Your task to perform on an android device: Search for the best rated headphones on Amazon Image 0: 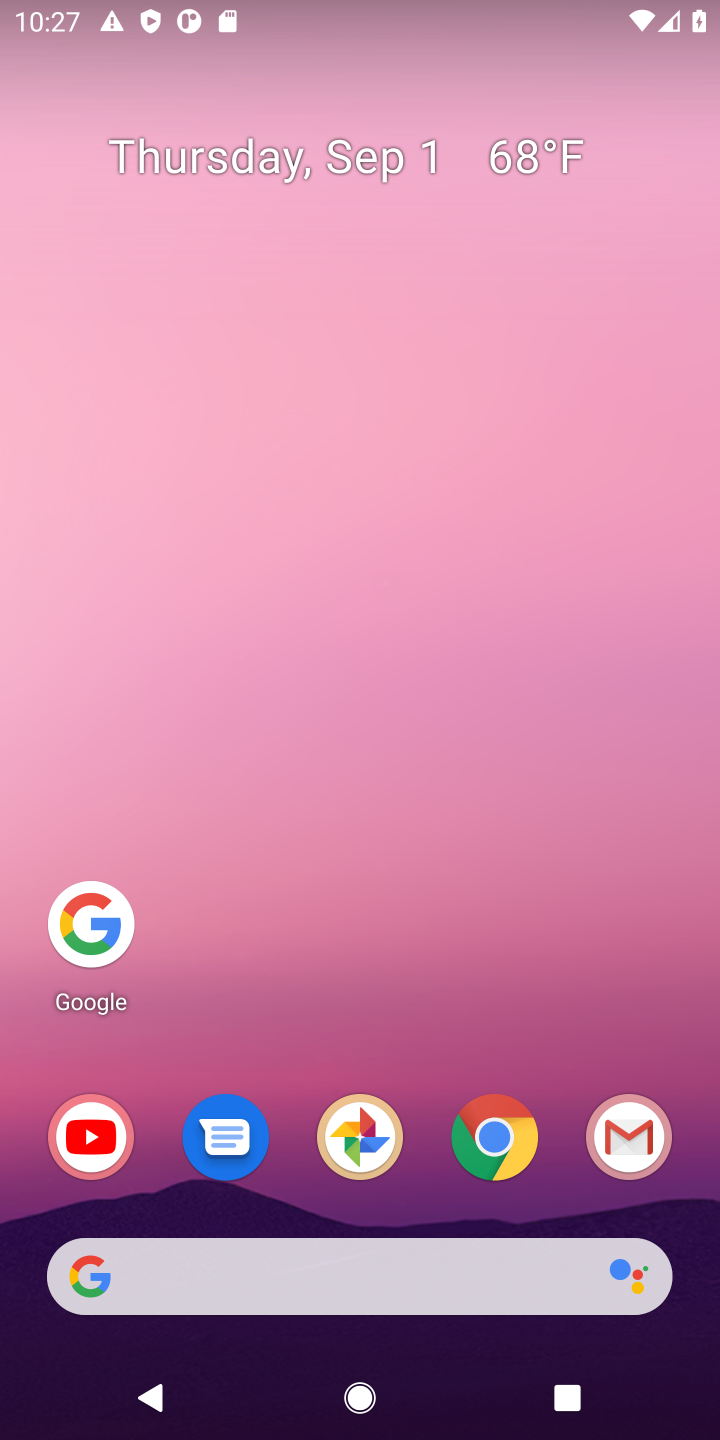
Step 0: click (502, 1136)
Your task to perform on an android device: Search for the best rated headphones on Amazon Image 1: 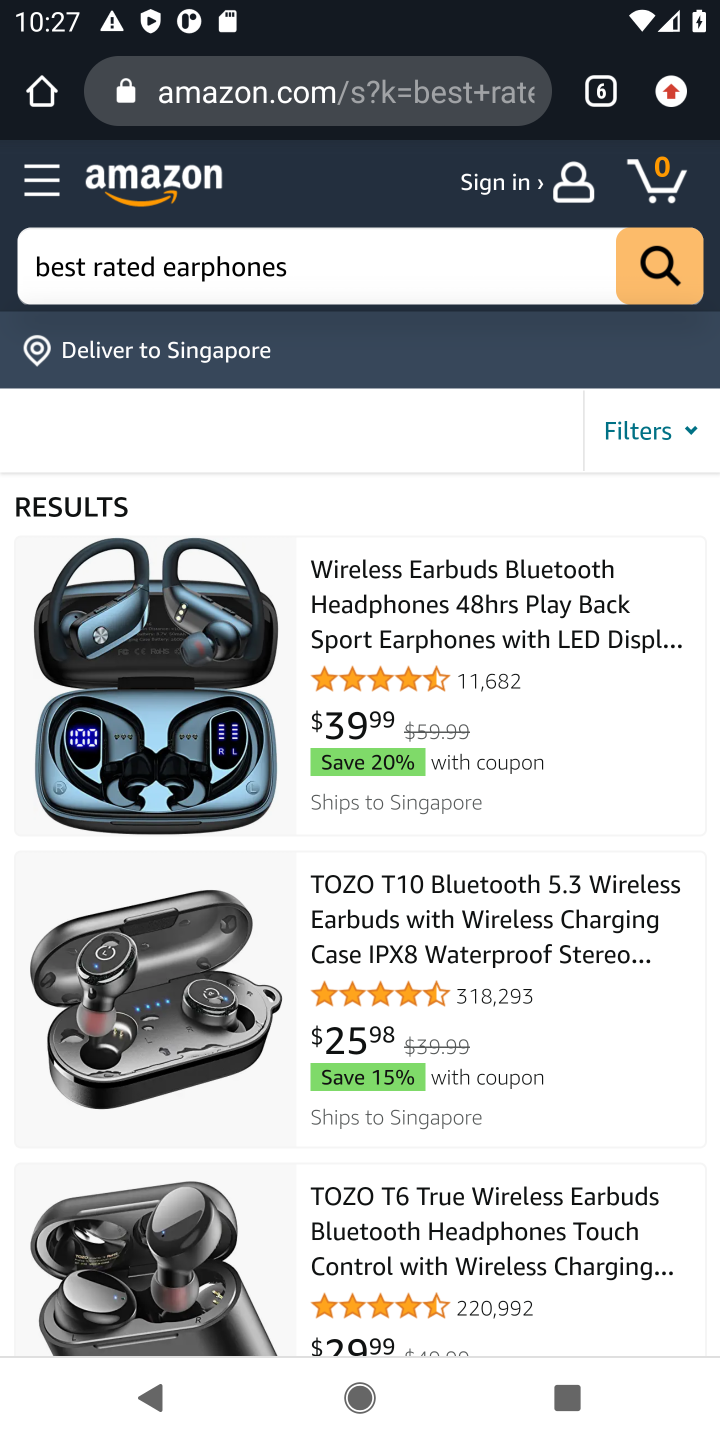
Step 1: click (336, 248)
Your task to perform on an android device: Search for the best rated headphones on Amazon Image 2: 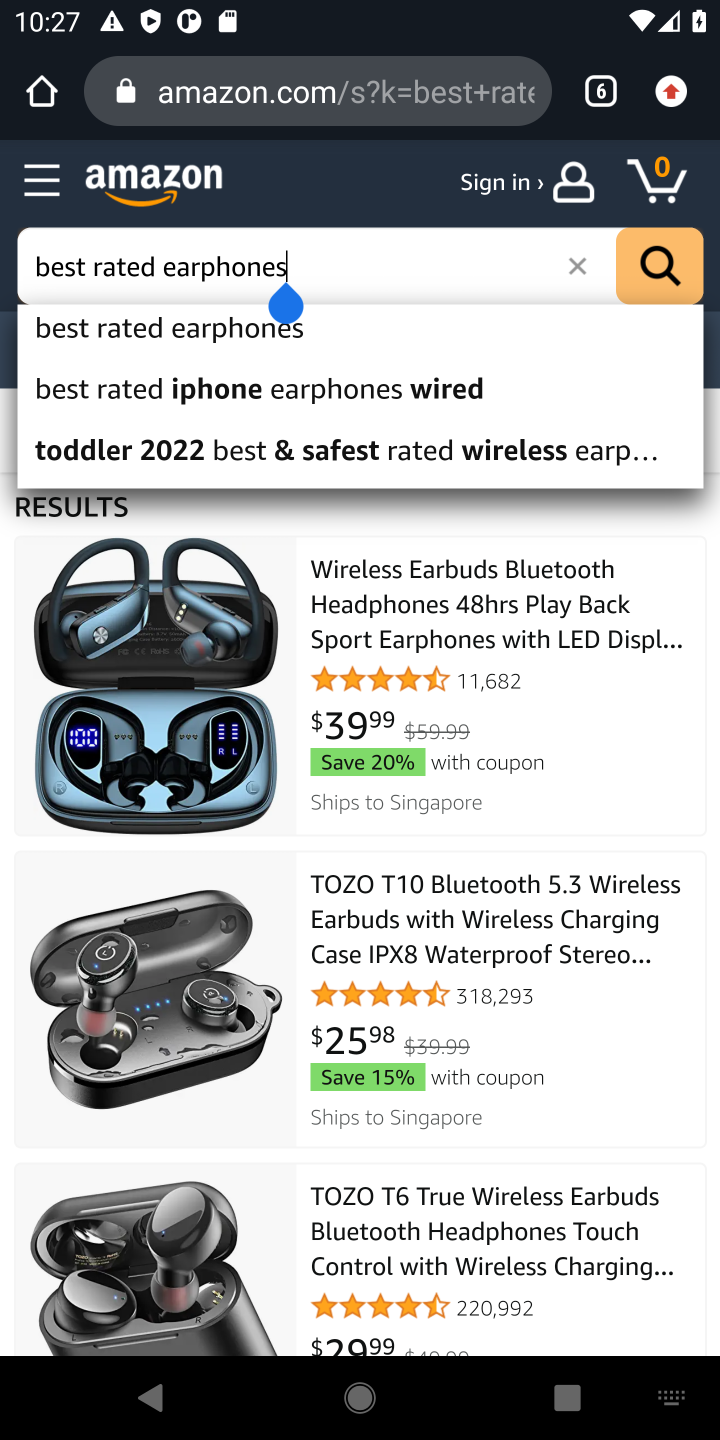
Step 2: click (239, 267)
Your task to perform on an android device: Search for the best rated headphones on Amazon Image 3: 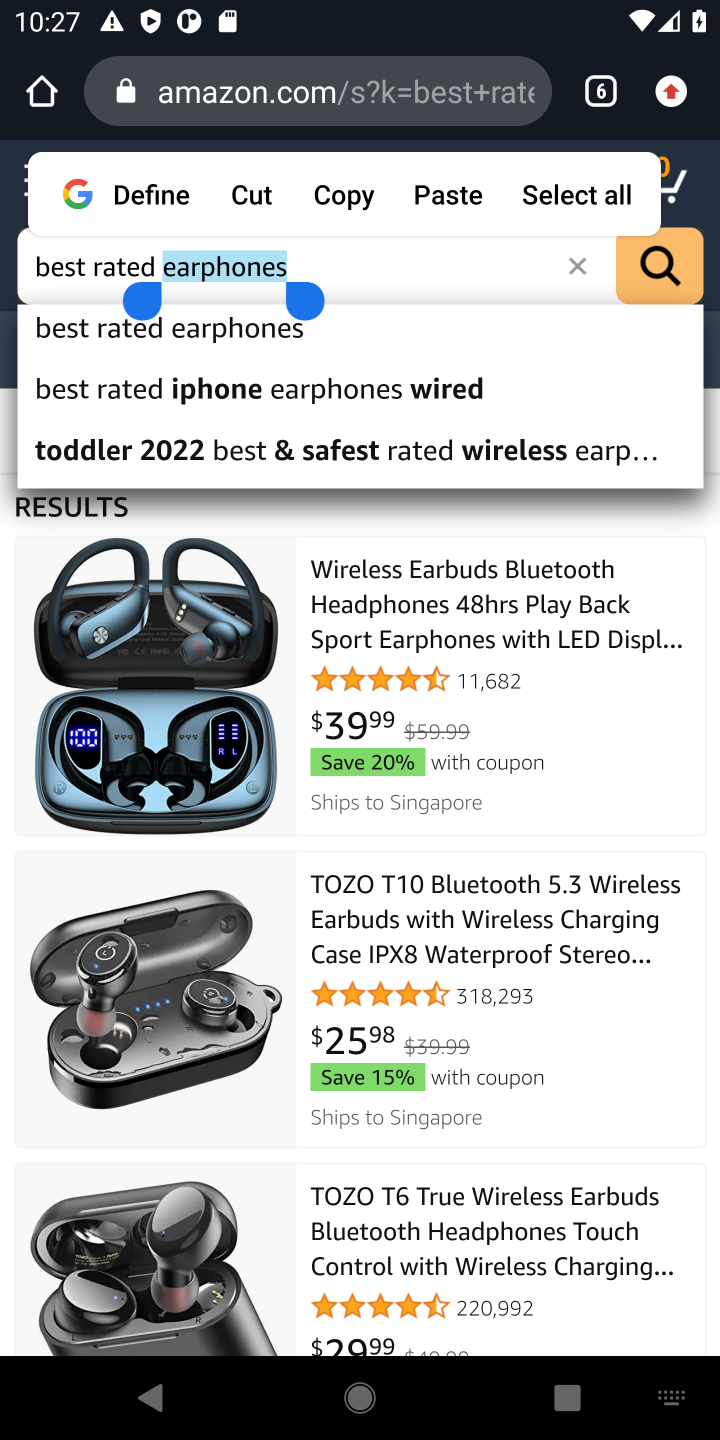
Step 3: click (244, 191)
Your task to perform on an android device: Search for the best rated headphones on Amazon Image 4: 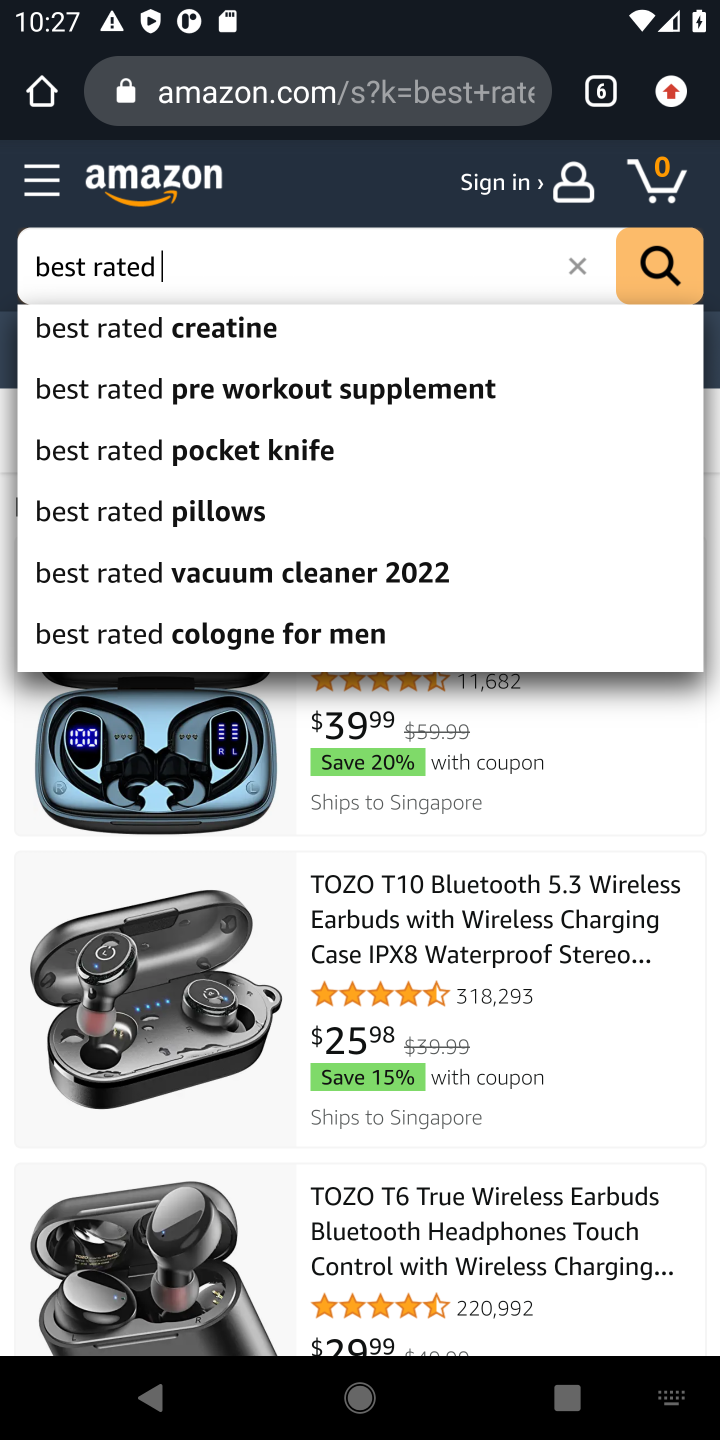
Step 4: type "headphones"
Your task to perform on an android device: Search for the best rated headphones on Amazon Image 5: 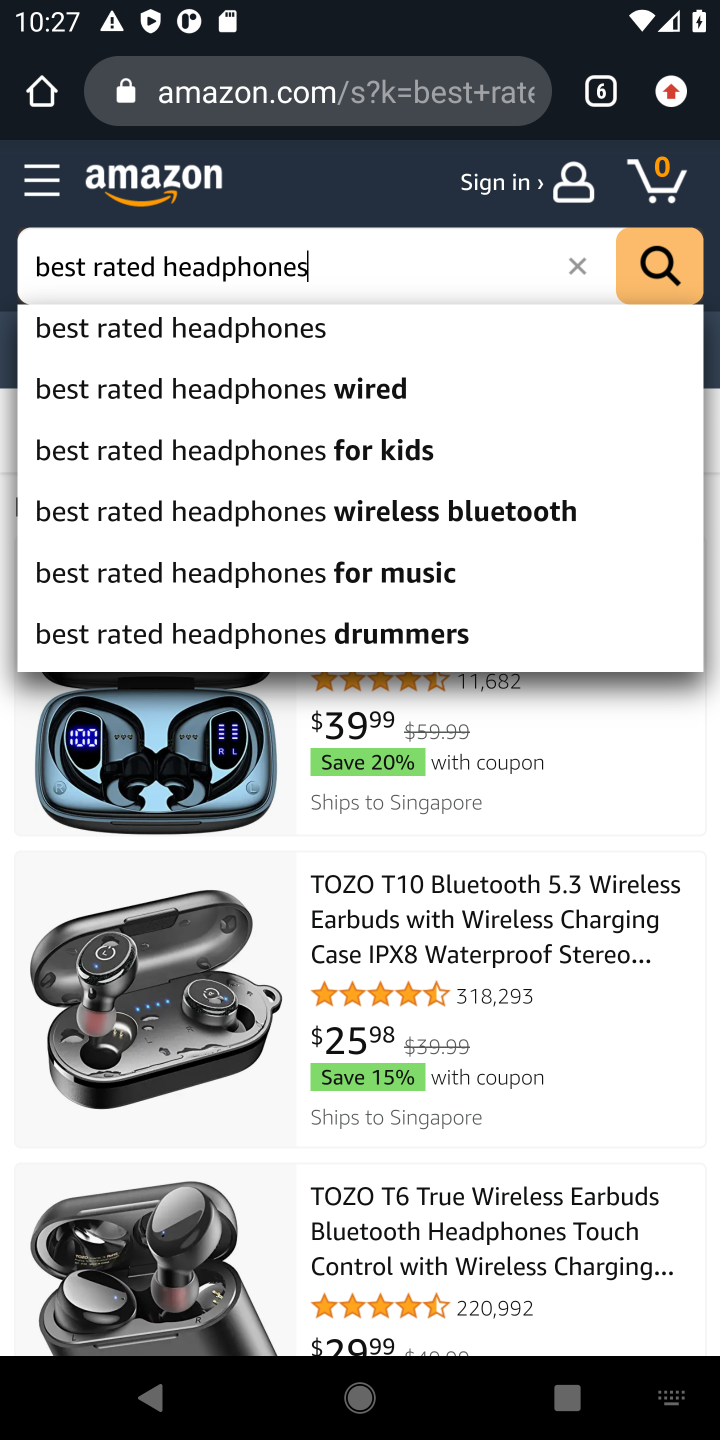
Step 5: click (295, 331)
Your task to perform on an android device: Search for the best rated headphones on Amazon Image 6: 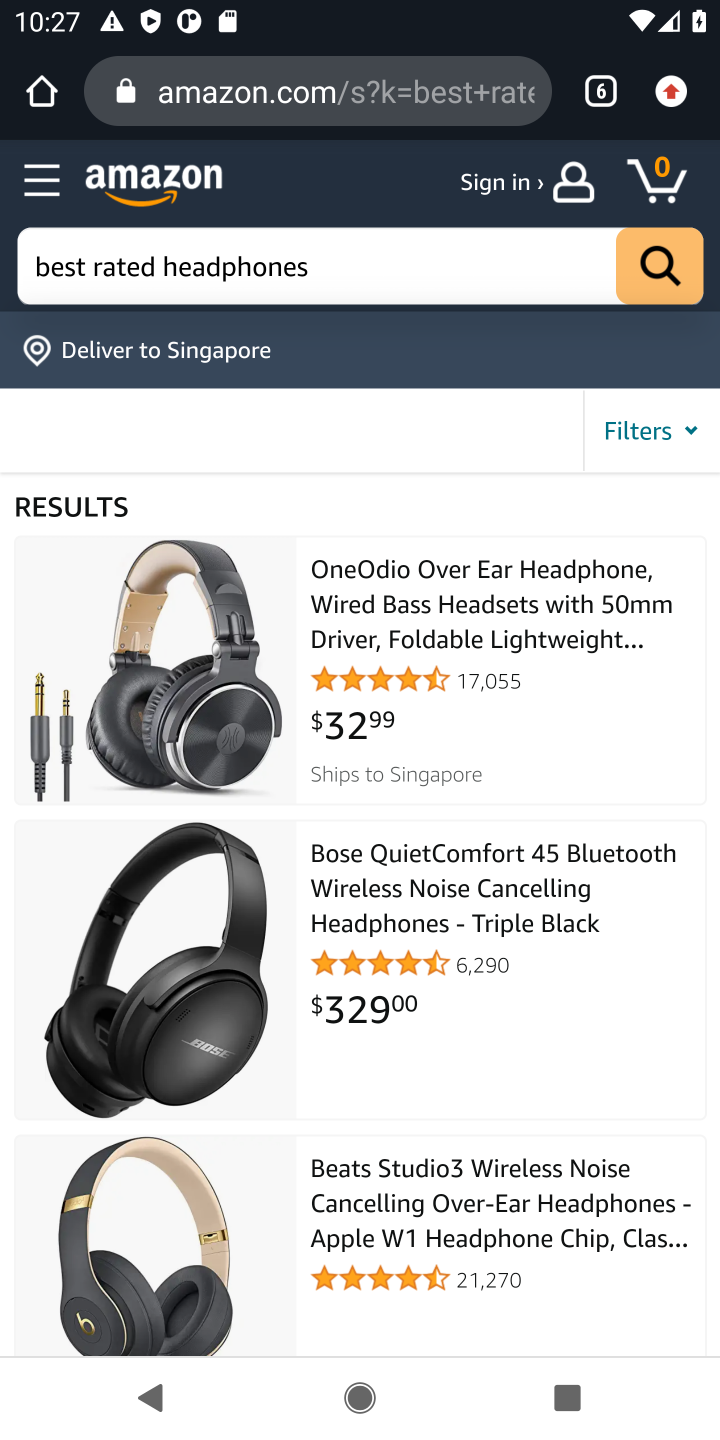
Step 6: task complete